Your task to perform on an android device: open app "Microsoft Outlook" Image 0: 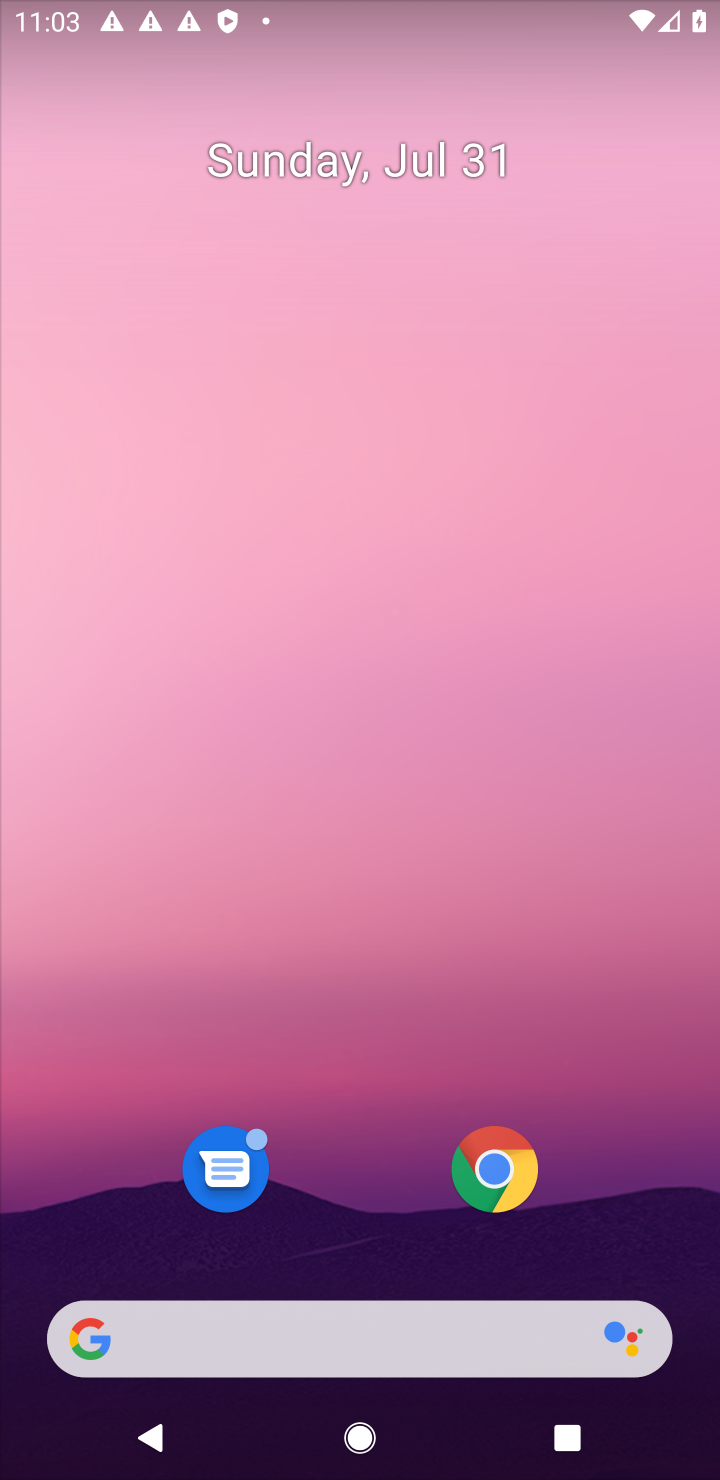
Step 0: click (441, 175)
Your task to perform on an android device: open app "Microsoft Outlook" Image 1: 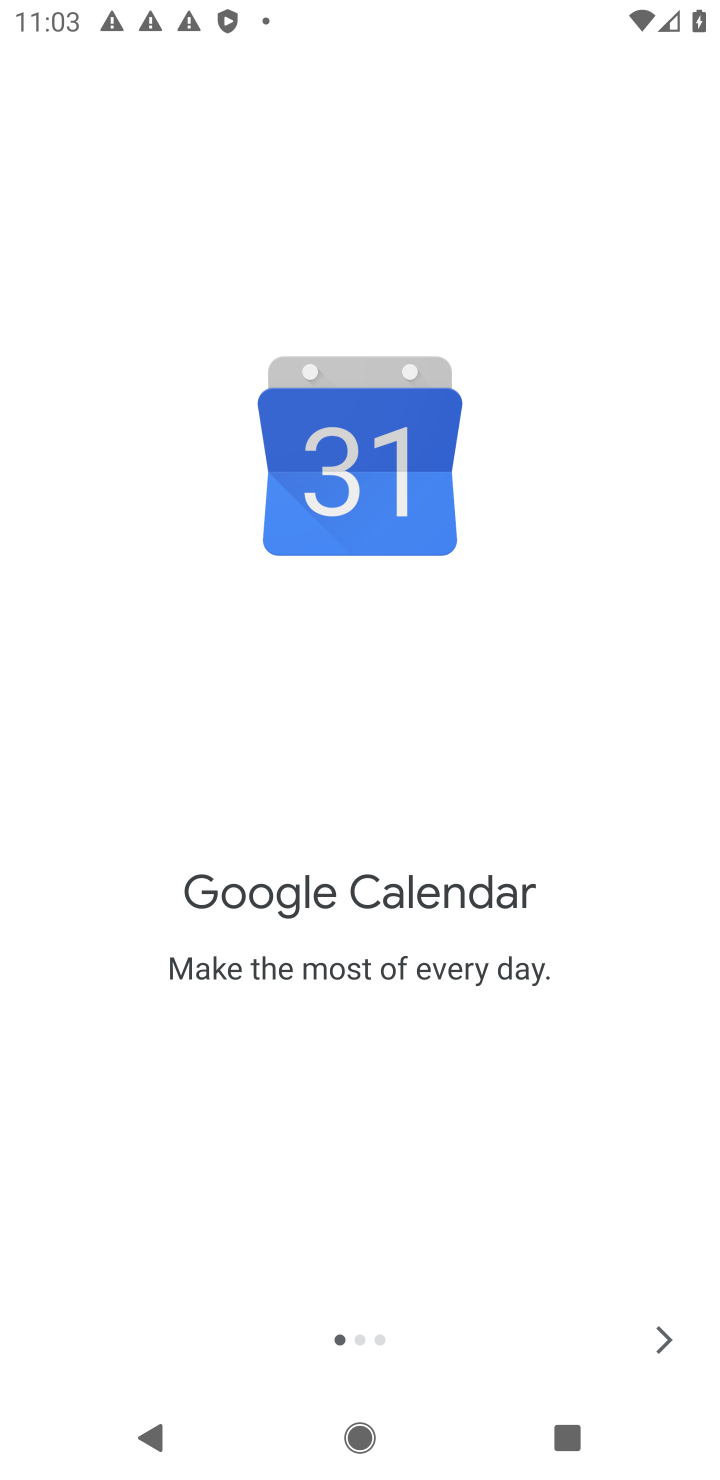
Step 1: press home button
Your task to perform on an android device: open app "Microsoft Outlook" Image 2: 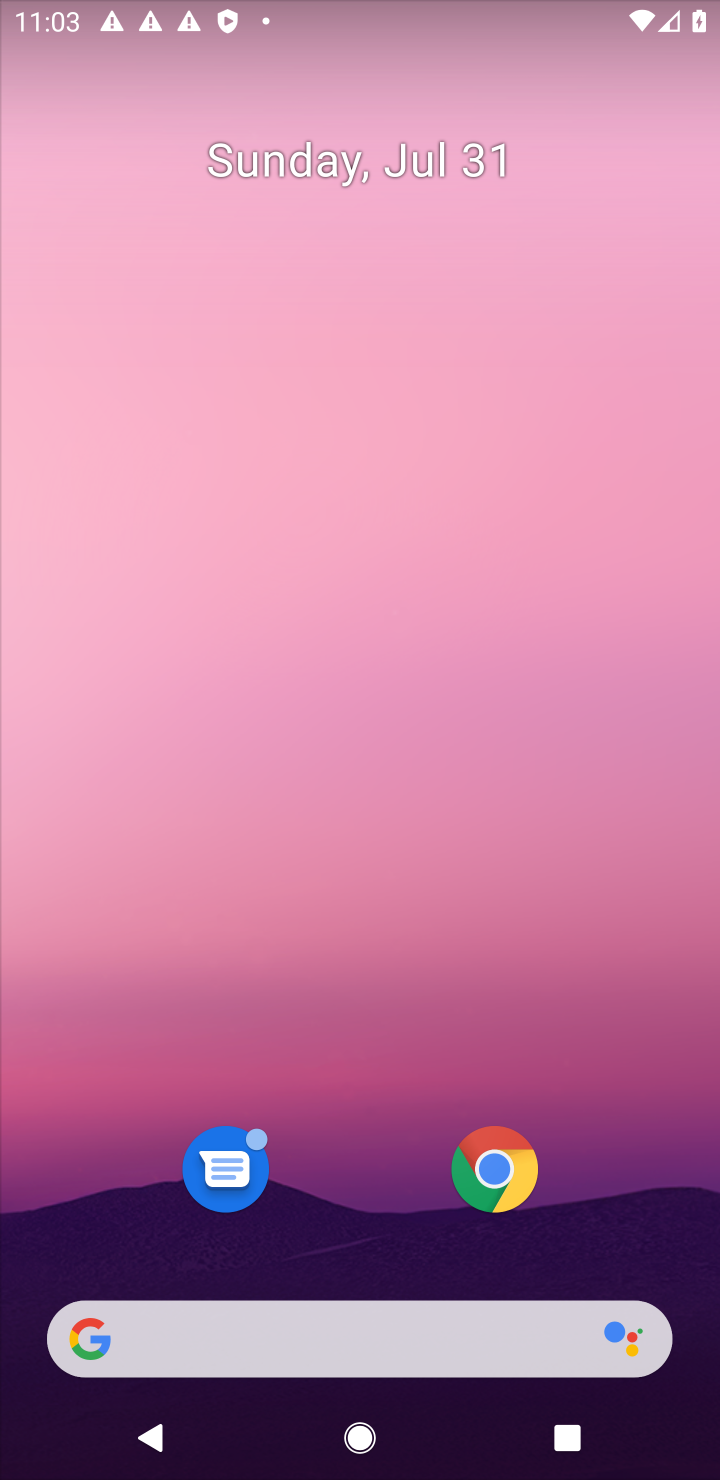
Step 2: drag from (394, 792) to (396, 167)
Your task to perform on an android device: open app "Microsoft Outlook" Image 3: 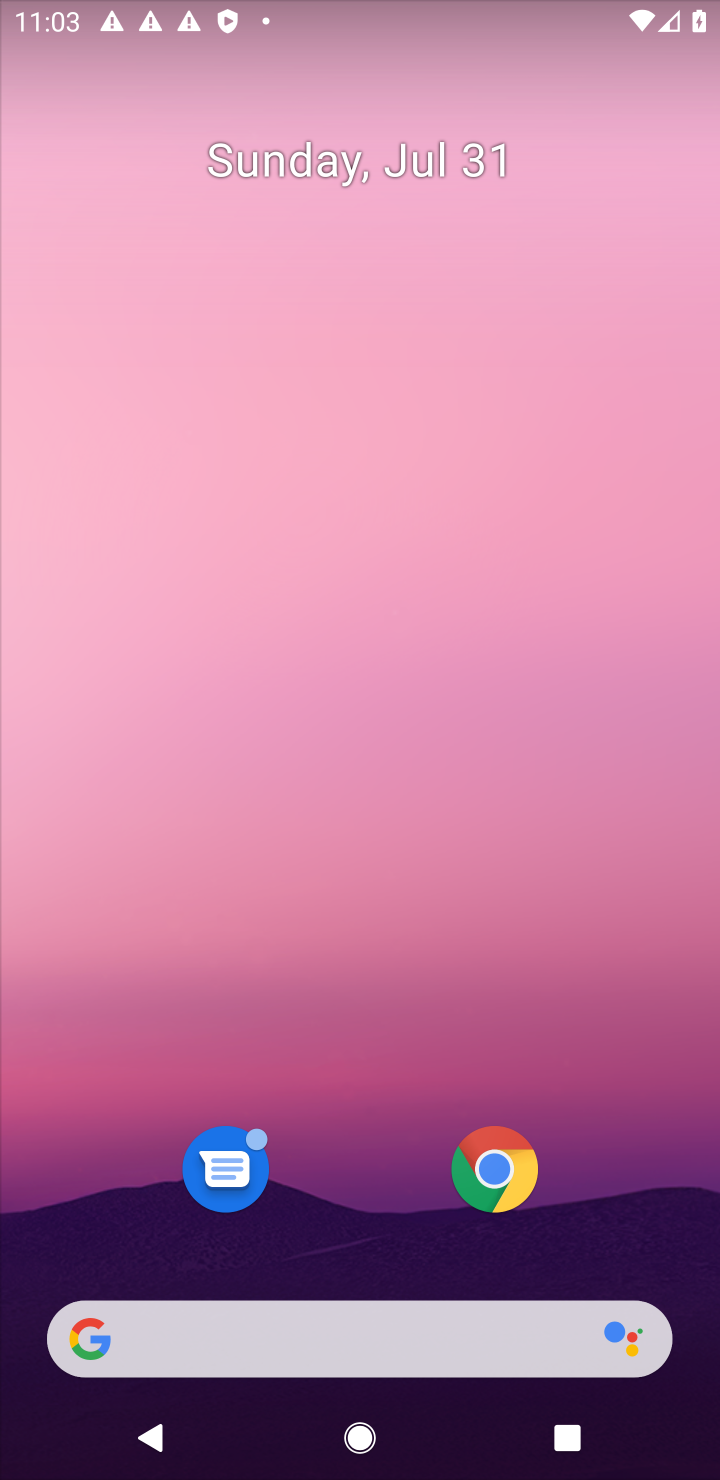
Step 3: drag from (327, 1300) to (405, 164)
Your task to perform on an android device: open app "Microsoft Outlook" Image 4: 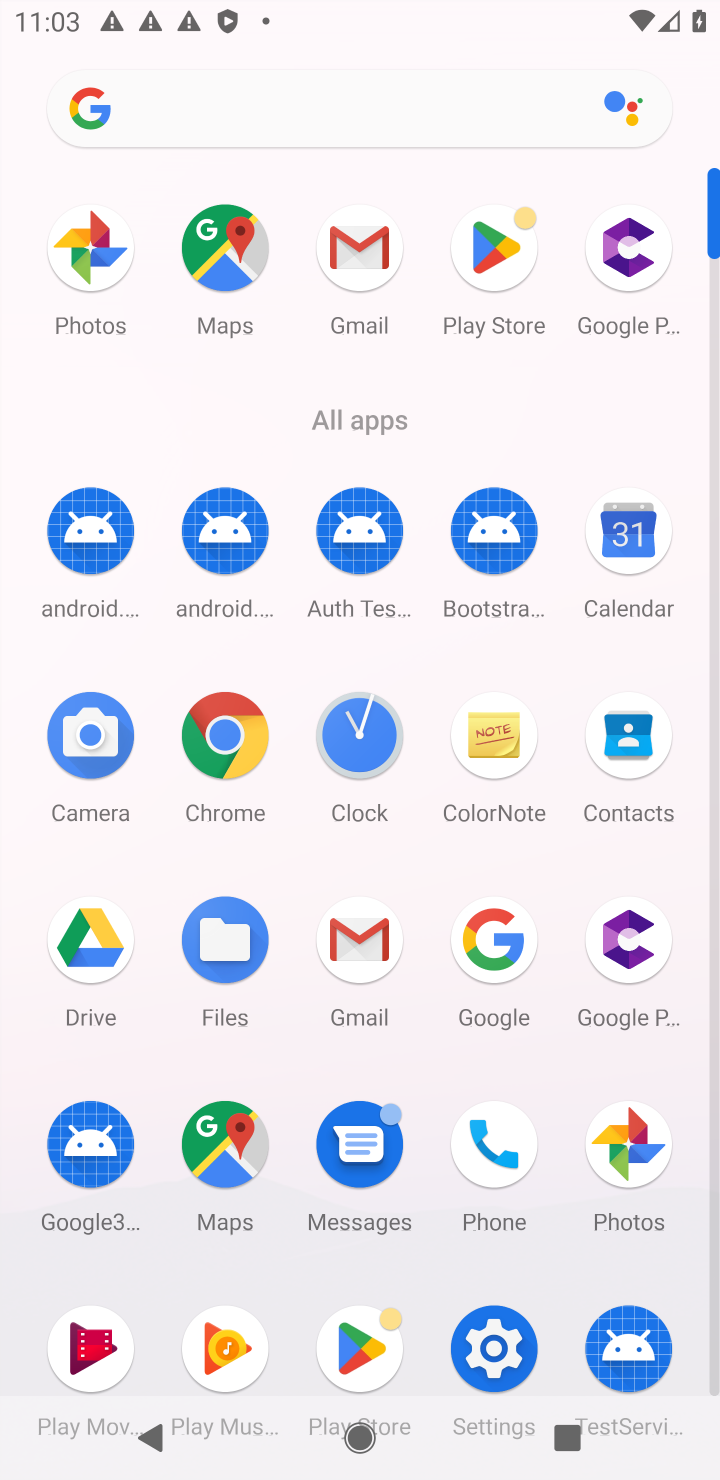
Step 4: click (505, 249)
Your task to perform on an android device: open app "Microsoft Outlook" Image 5: 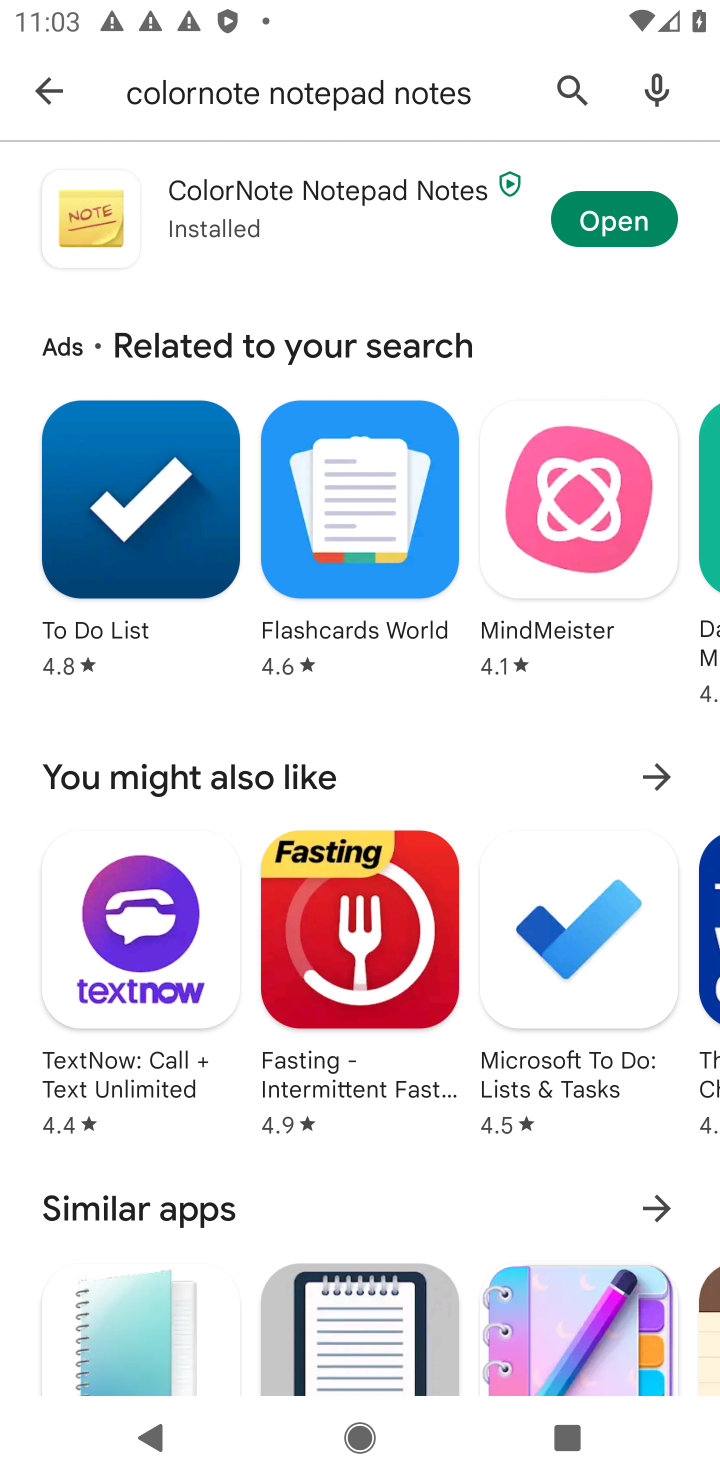
Step 5: click (38, 88)
Your task to perform on an android device: open app "Microsoft Outlook" Image 6: 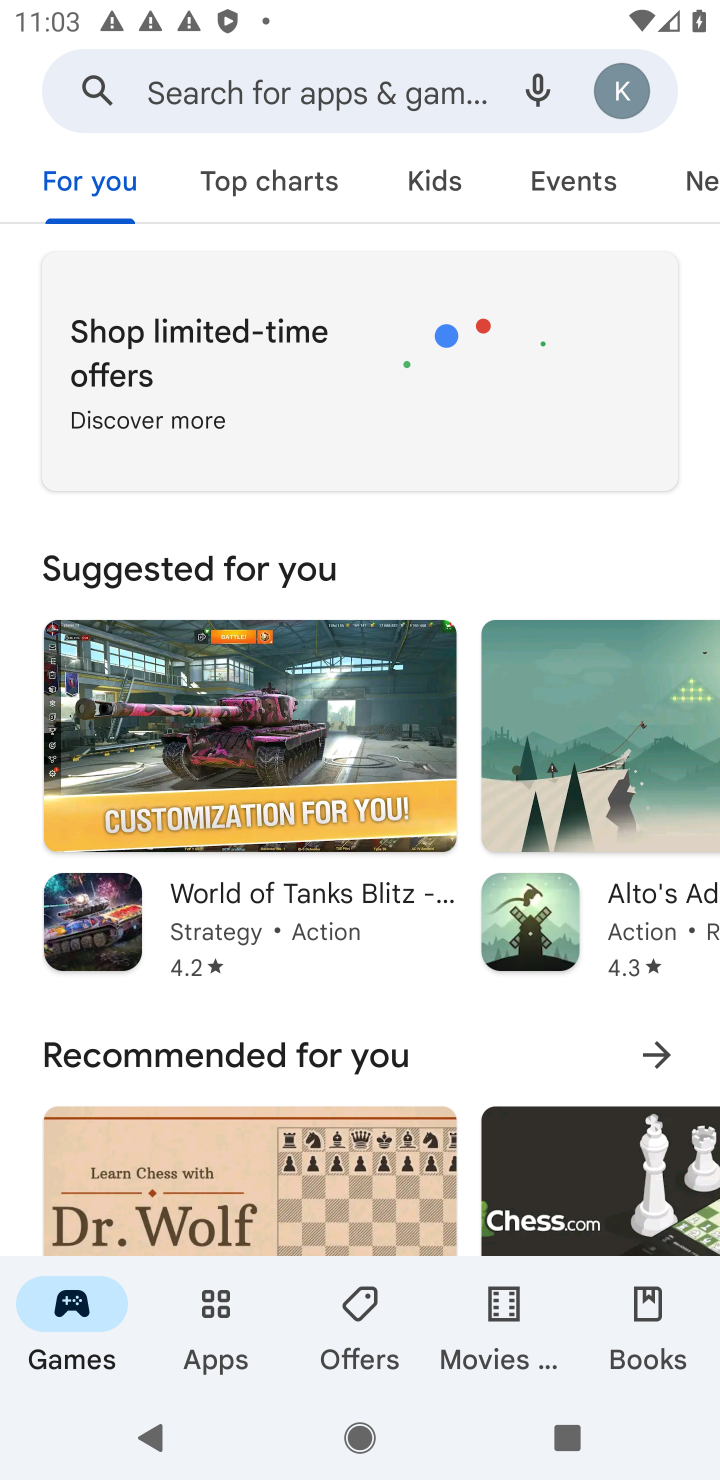
Step 6: click (186, 85)
Your task to perform on an android device: open app "Microsoft Outlook" Image 7: 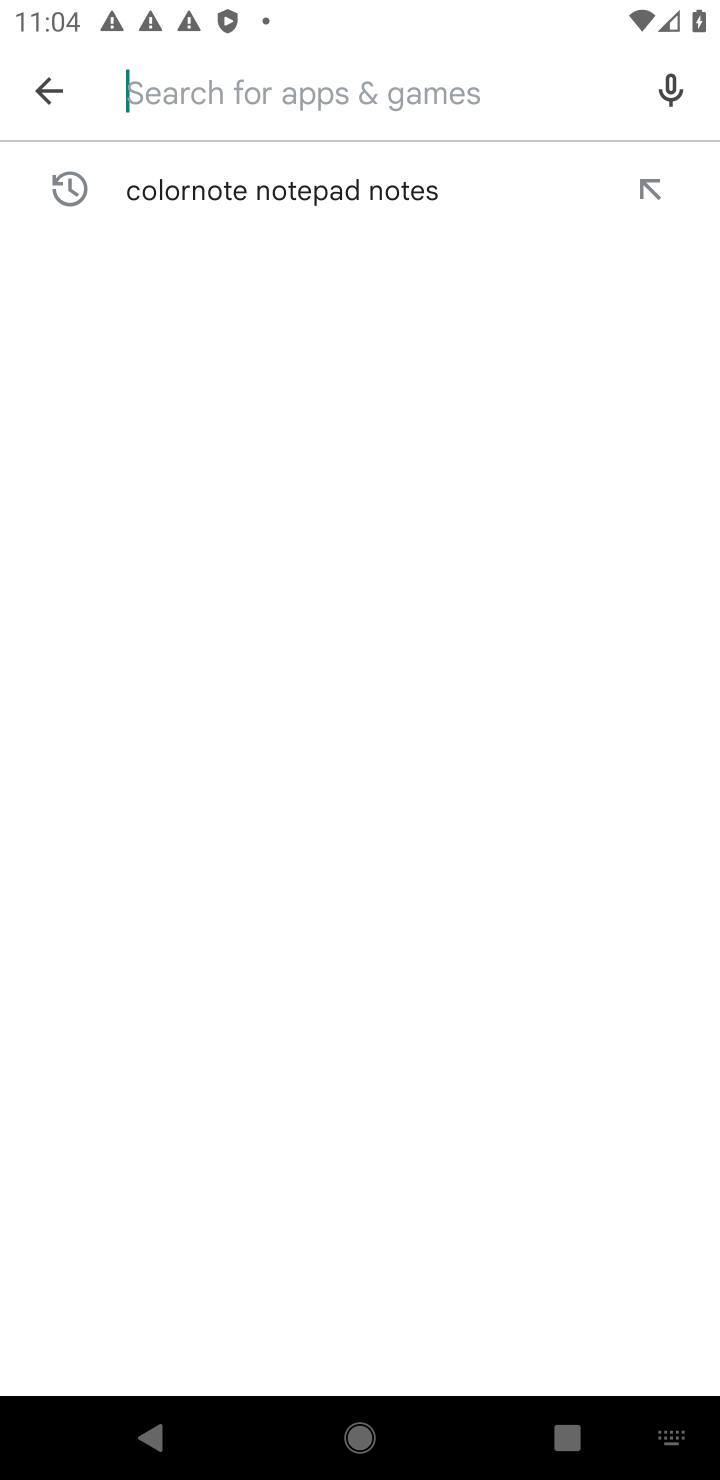
Step 7: type "Microsoft Outlook"
Your task to perform on an android device: open app "Microsoft Outlook" Image 8: 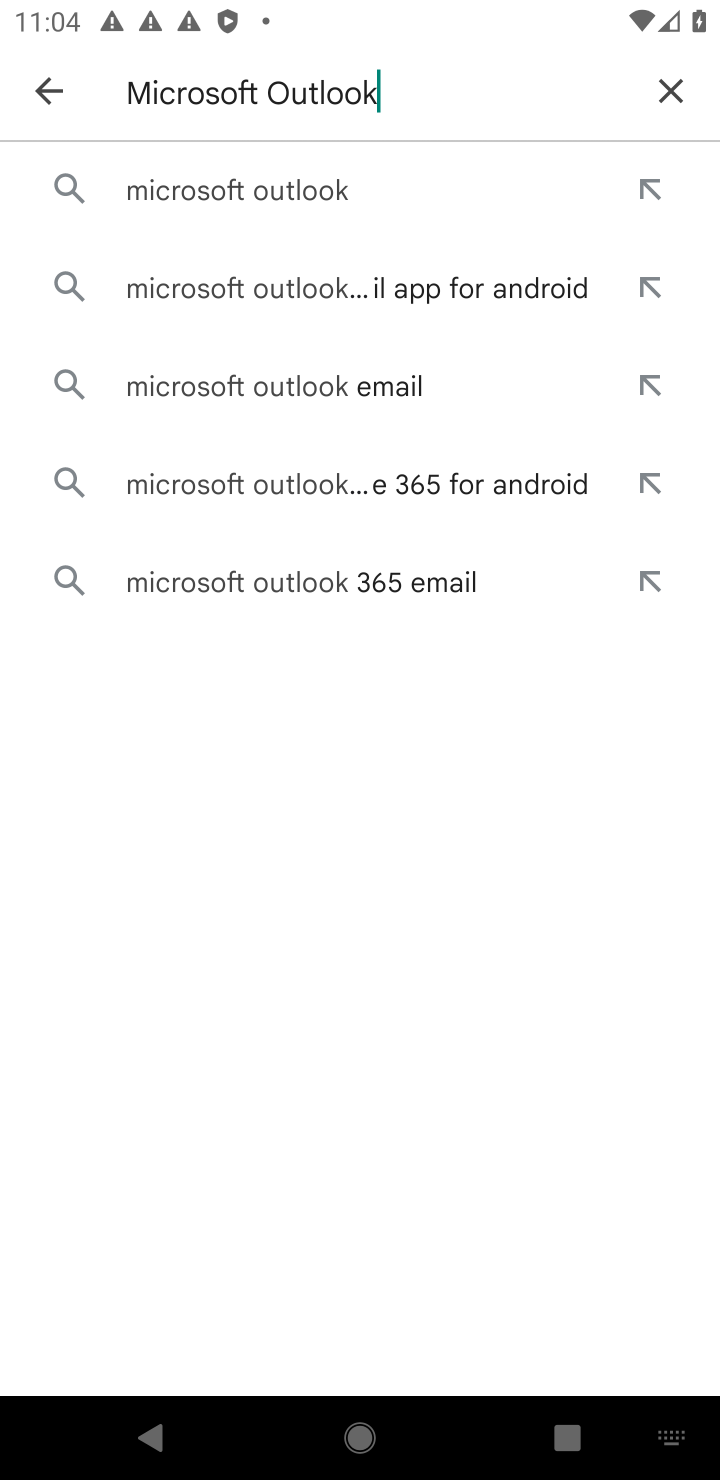
Step 8: click (305, 184)
Your task to perform on an android device: open app "Microsoft Outlook" Image 9: 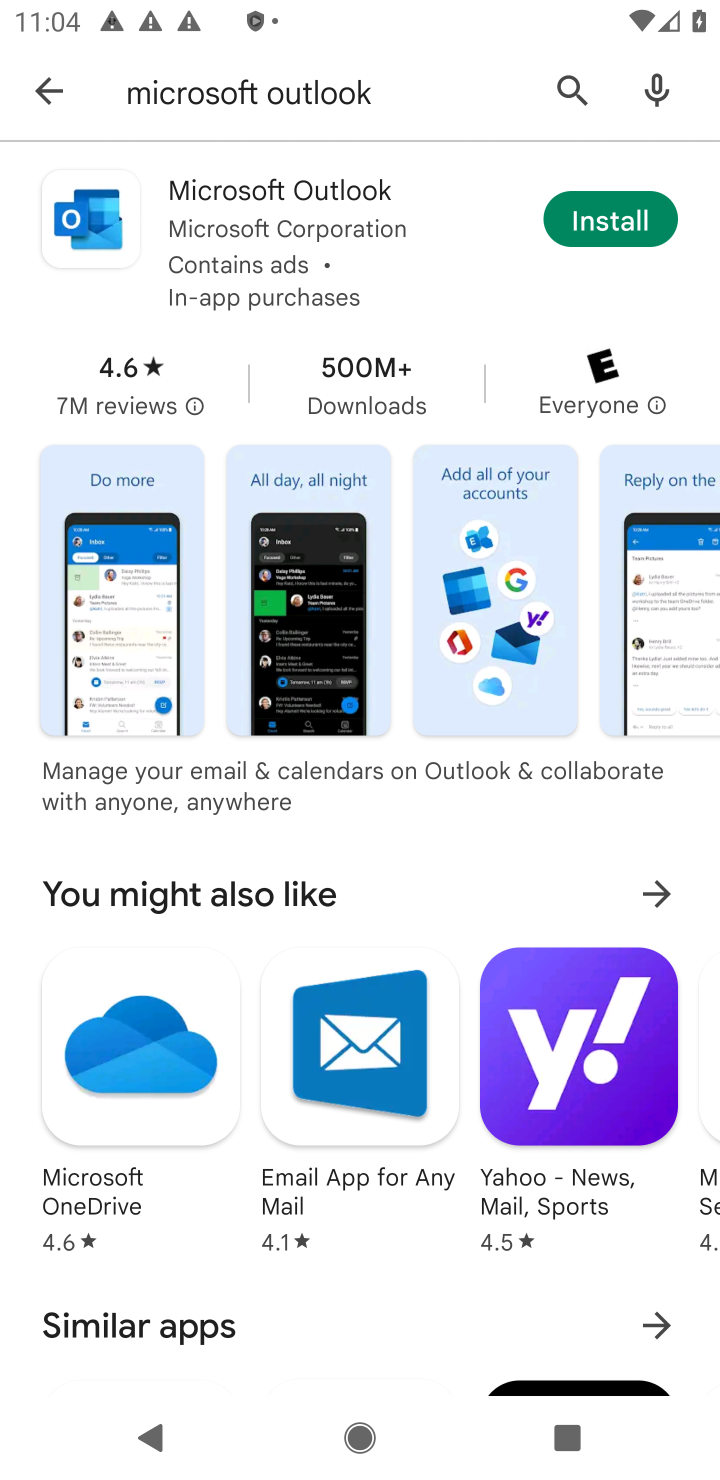
Step 9: click (607, 226)
Your task to perform on an android device: open app "Microsoft Outlook" Image 10: 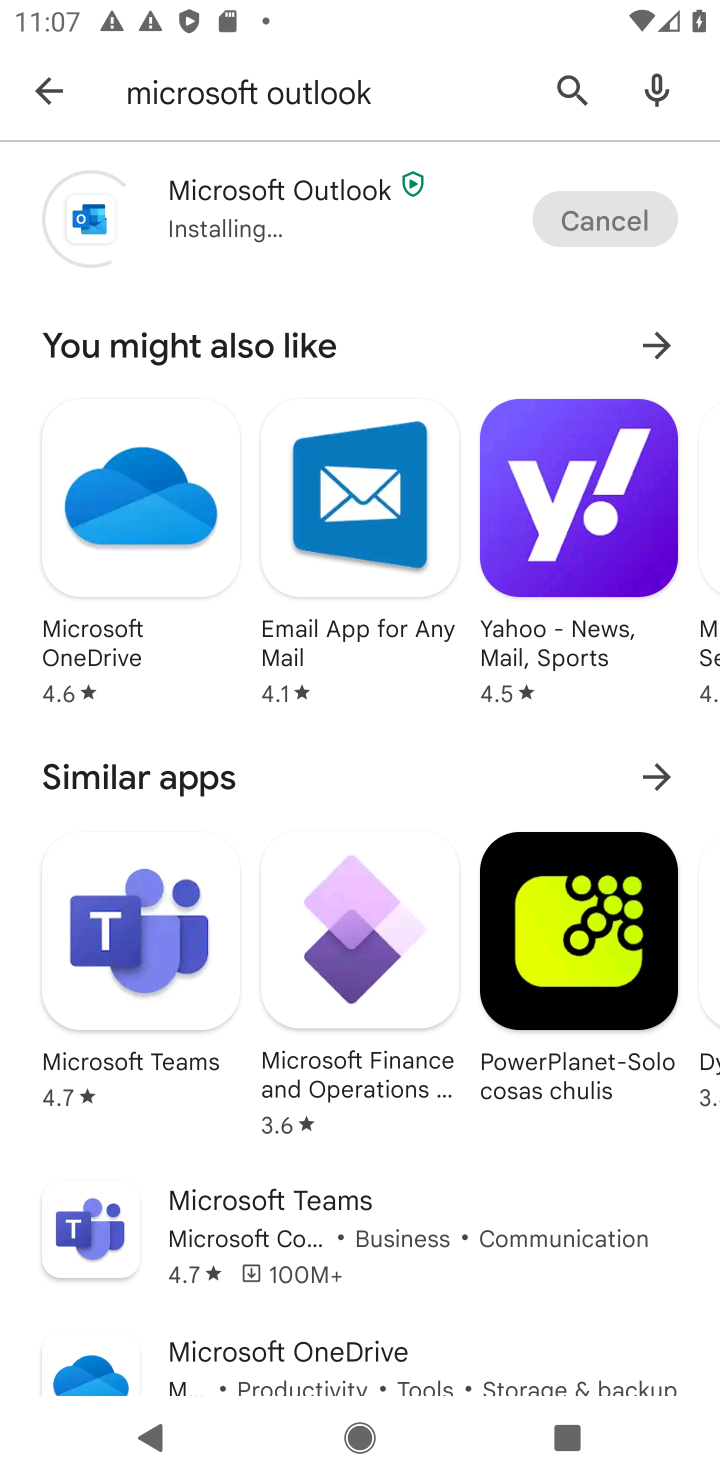
Step 10: task complete